Your task to perform on an android device: turn on bluetooth scan Image 0: 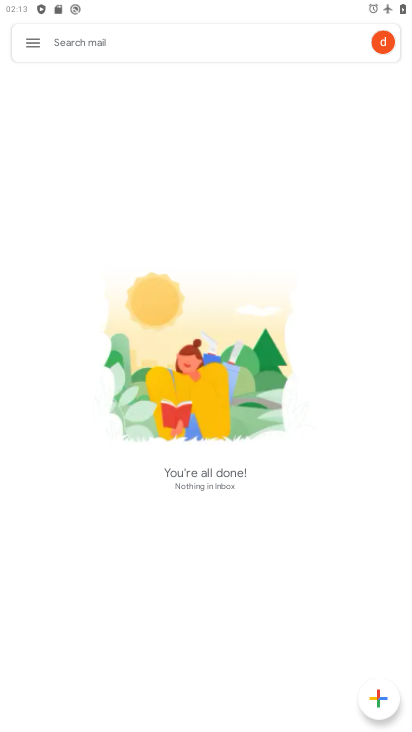
Step 0: press home button
Your task to perform on an android device: turn on bluetooth scan Image 1: 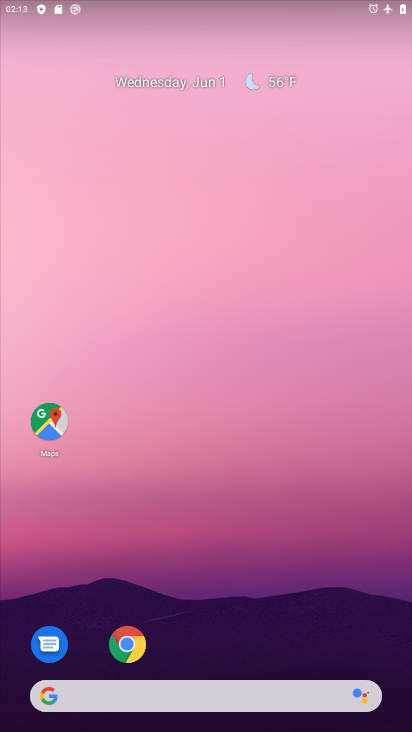
Step 1: drag from (197, 647) to (150, 332)
Your task to perform on an android device: turn on bluetooth scan Image 2: 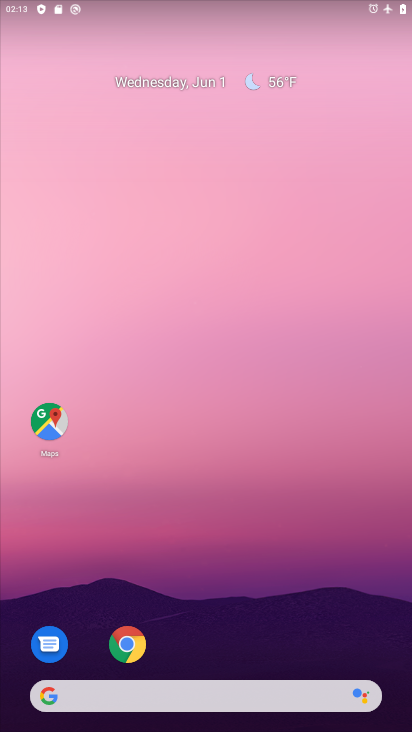
Step 2: drag from (232, 673) to (164, 133)
Your task to perform on an android device: turn on bluetooth scan Image 3: 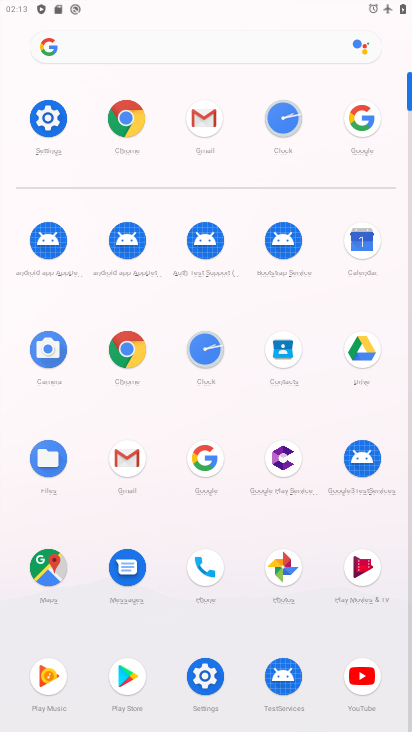
Step 3: click (52, 125)
Your task to perform on an android device: turn on bluetooth scan Image 4: 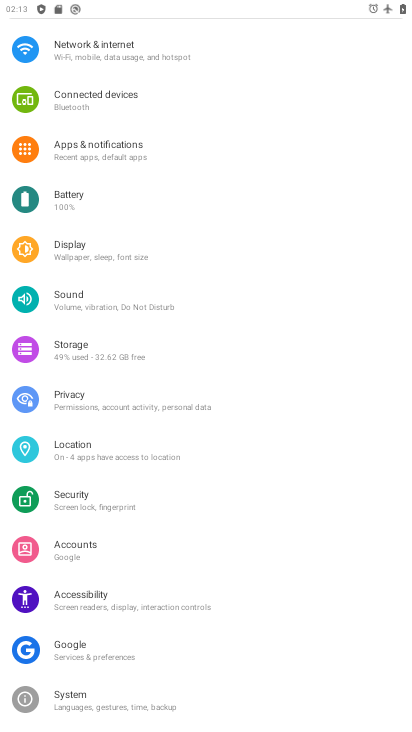
Step 4: click (96, 439)
Your task to perform on an android device: turn on bluetooth scan Image 5: 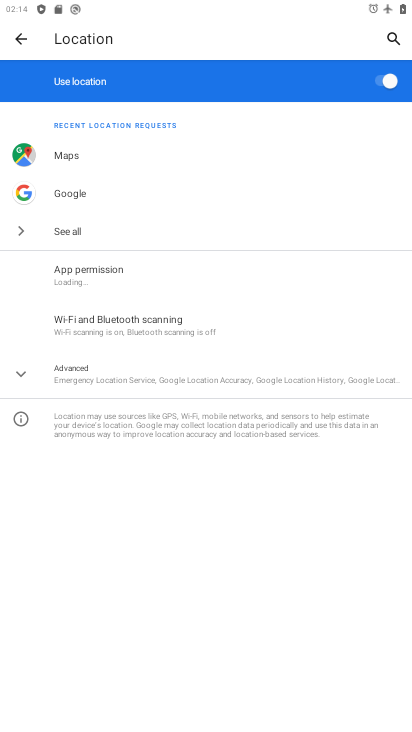
Step 5: click (78, 371)
Your task to perform on an android device: turn on bluetooth scan Image 6: 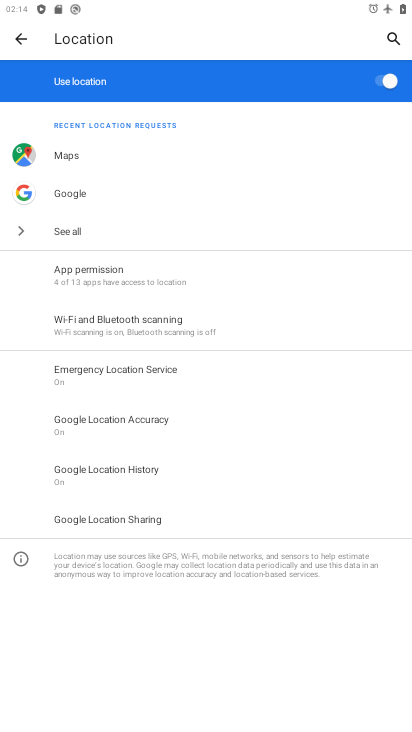
Step 6: click (121, 320)
Your task to perform on an android device: turn on bluetooth scan Image 7: 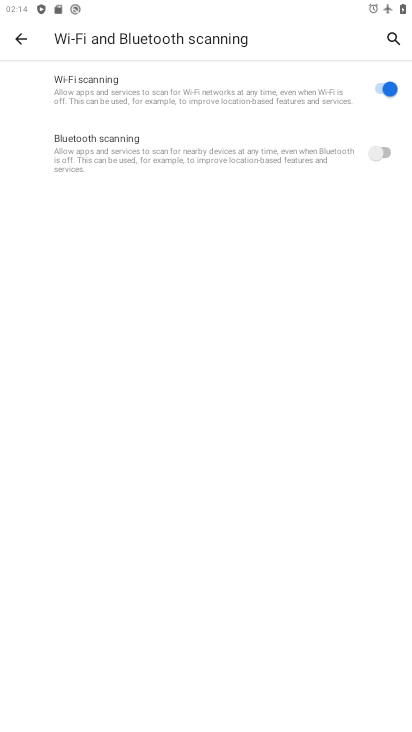
Step 7: click (393, 152)
Your task to perform on an android device: turn on bluetooth scan Image 8: 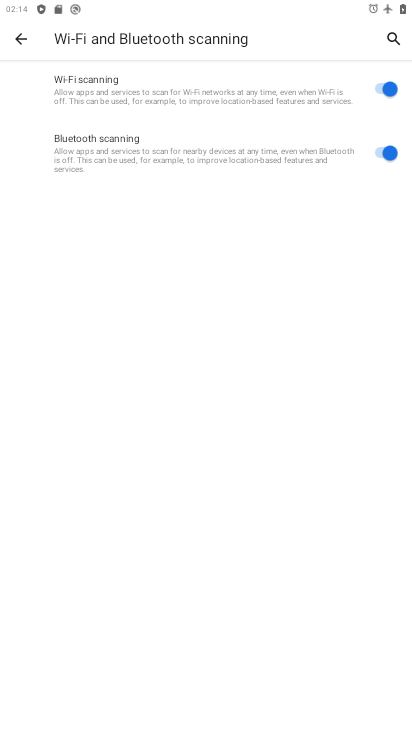
Step 8: task complete